Your task to perform on an android device: View the shopping cart on newegg.com. Add logitech g pro to the cart on newegg.com, then select checkout. Image 0: 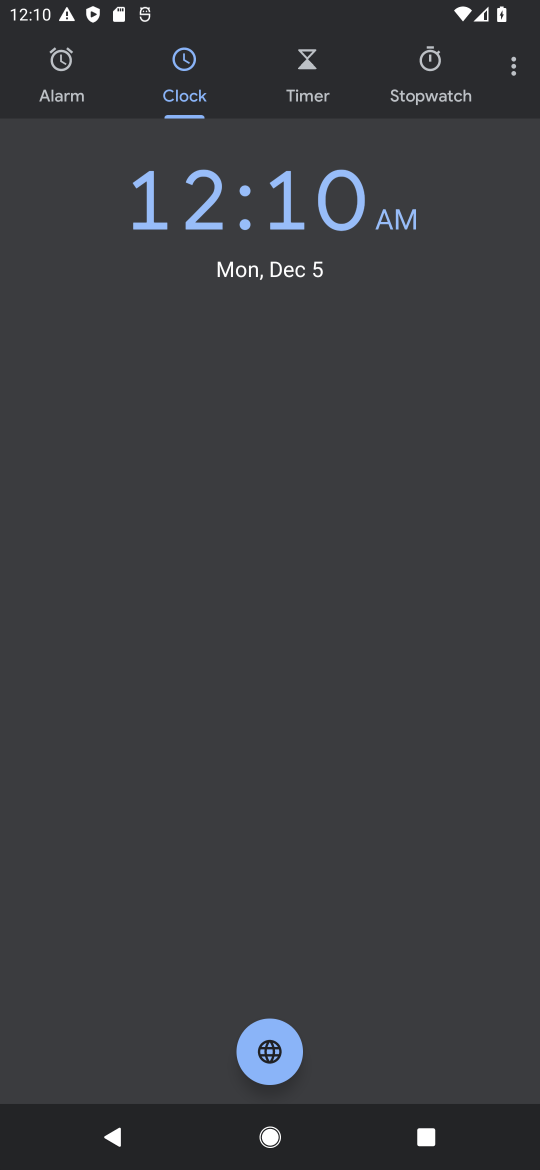
Step 0: task complete